Your task to perform on an android device: Go to notification settings Image 0: 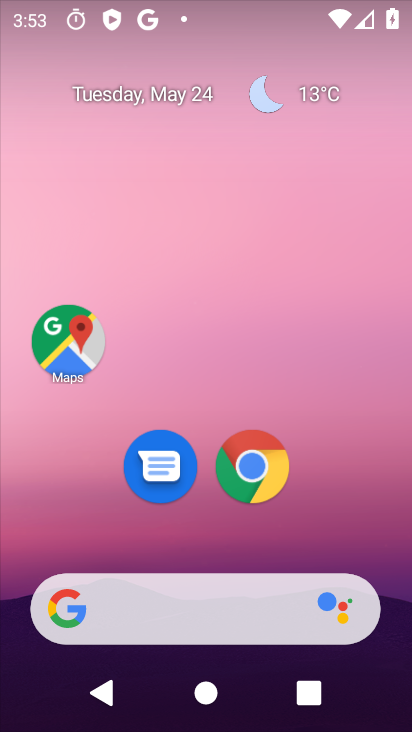
Step 0: drag from (316, 539) to (325, 11)
Your task to perform on an android device: Go to notification settings Image 1: 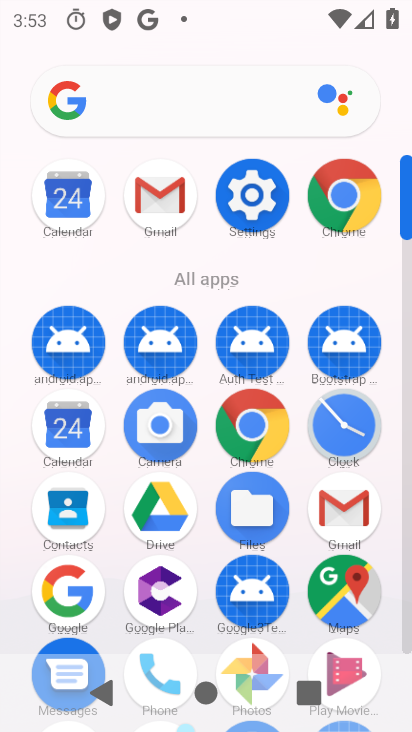
Step 1: click (240, 181)
Your task to perform on an android device: Go to notification settings Image 2: 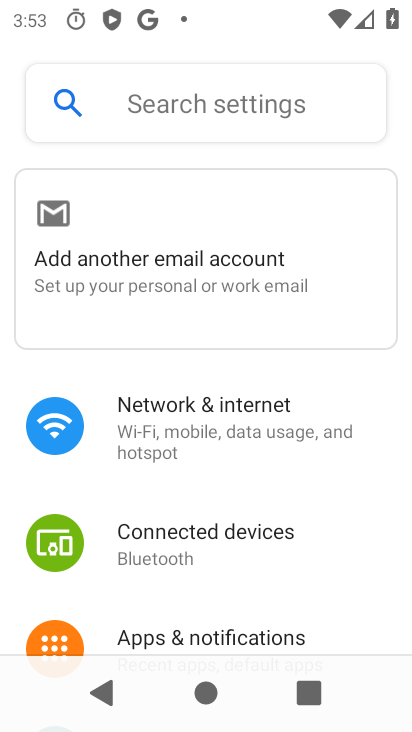
Step 2: drag from (222, 622) to (277, 275)
Your task to perform on an android device: Go to notification settings Image 3: 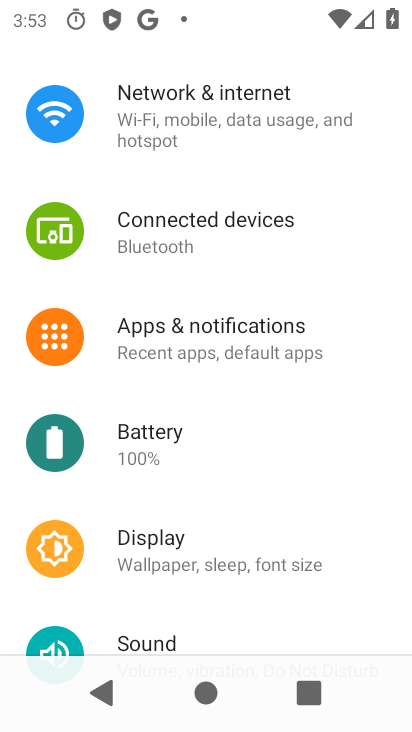
Step 3: click (245, 350)
Your task to perform on an android device: Go to notification settings Image 4: 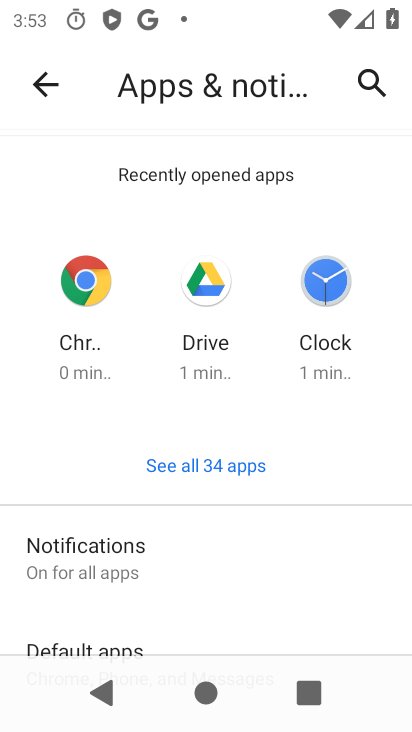
Step 4: click (99, 541)
Your task to perform on an android device: Go to notification settings Image 5: 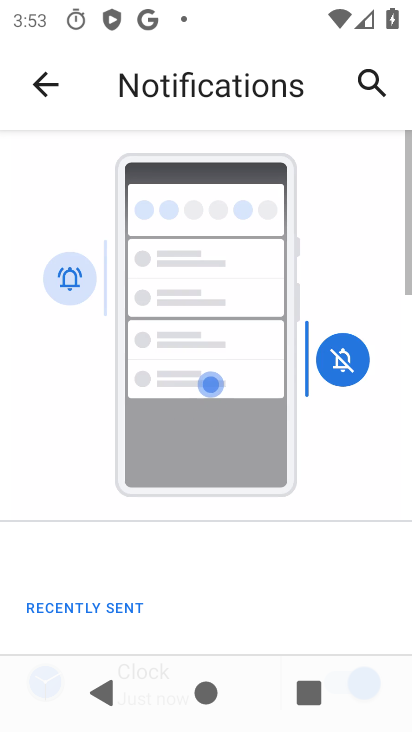
Step 5: task complete